Your task to perform on an android device: Open the Play Movies app and select the watchlist tab. Image 0: 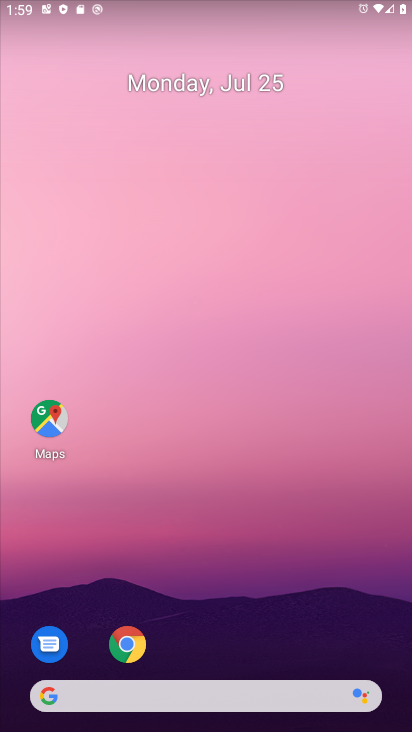
Step 0: click (218, 18)
Your task to perform on an android device: Open the Play Movies app and select the watchlist tab. Image 1: 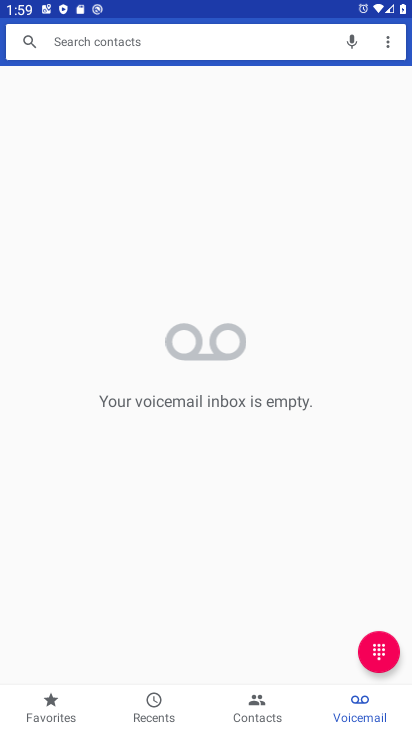
Step 1: press home button
Your task to perform on an android device: Open the Play Movies app and select the watchlist tab. Image 2: 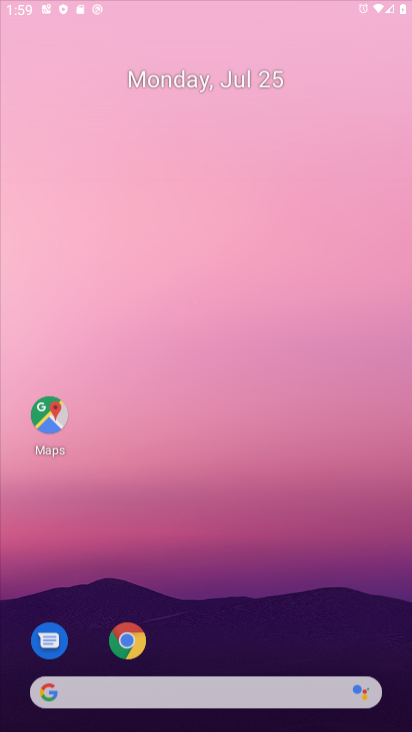
Step 2: drag from (400, 683) to (244, 7)
Your task to perform on an android device: Open the Play Movies app and select the watchlist tab. Image 3: 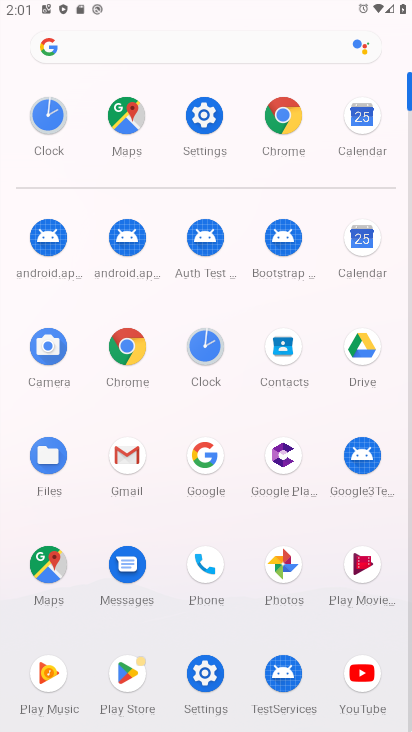
Step 3: click (375, 572)
Your task to perform on an android device: Open the Play Movies app and select the watchlist tab. Image 4: 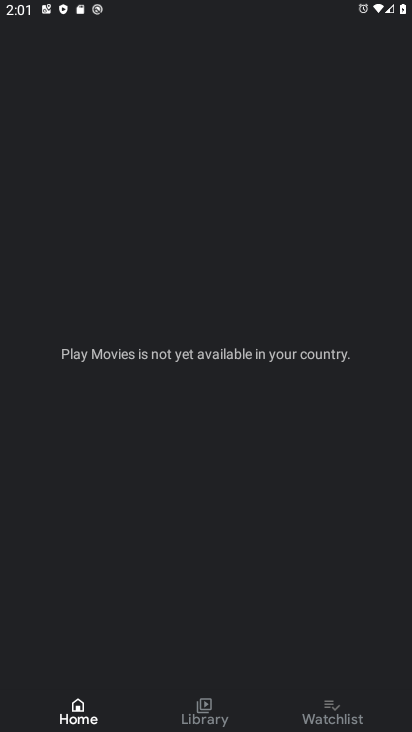
Step 4: click (322, 695)
Your task to perform on an android device: Open the Play Movies app and select the watchlist tab. Image 5: 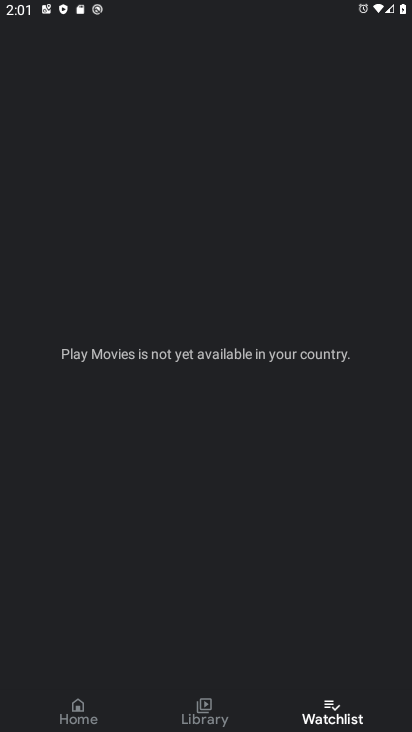
Step 5: task complete